Your task to perform on an android device: Open calendar and show me the first week of next month Image 0: 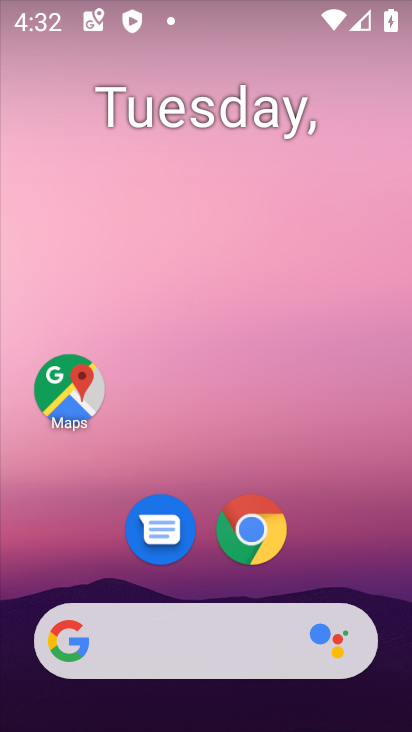
Step 0: drag from (346, 553) to (267, 1)
Your task to perform on an android device: Open calendar and show me the first week of next month Image 1: 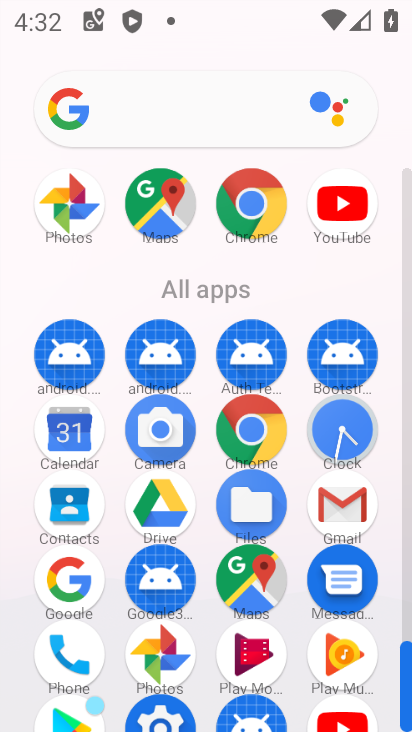
Step 1: drag from (17, 546) to (15, 259)
Your task to perform on an android device: Open calendar and show me the first week of next month Image 2: 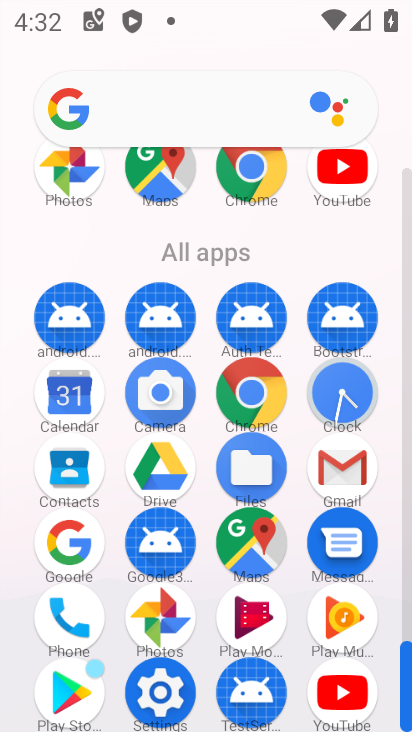
Step 2: click (246, 542)
Your task to perform on an android device: Open calendar and show me the first week of next month Image 3: 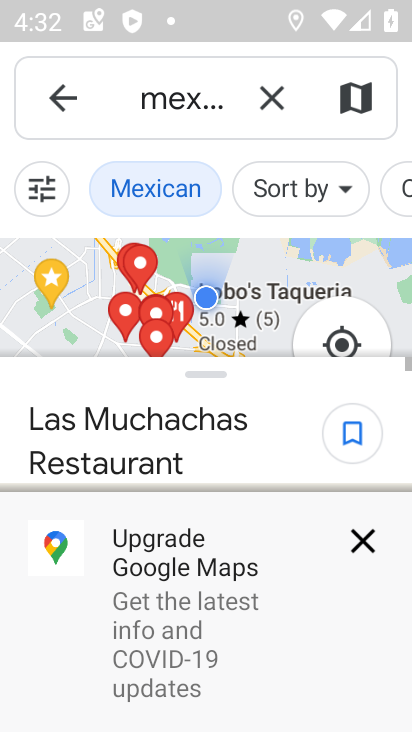
Step 3: press back button
Your task to perform on an android device: Open calendar and show me the first week of next month Image 4: 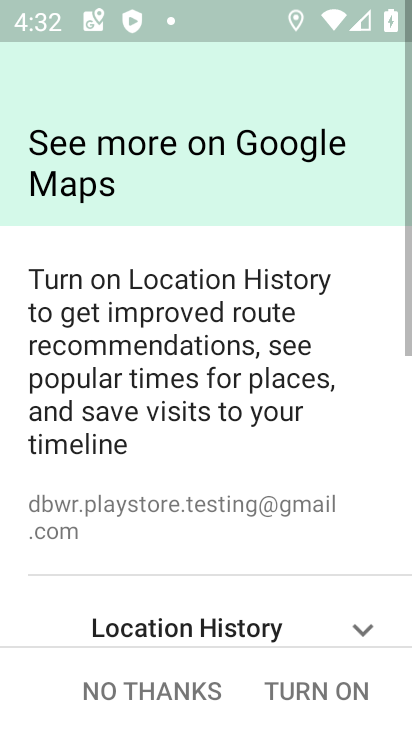
Step 4: press back button
Your task to perform on an android device: Open calendar and show me the first week of next month Image 5: 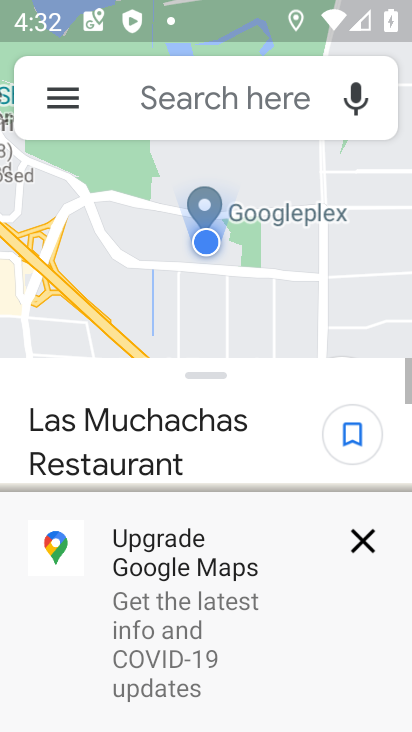
Step 5: press back button
Your task to perform on an android device: Open calendar and show me the first week of next month Image 6: 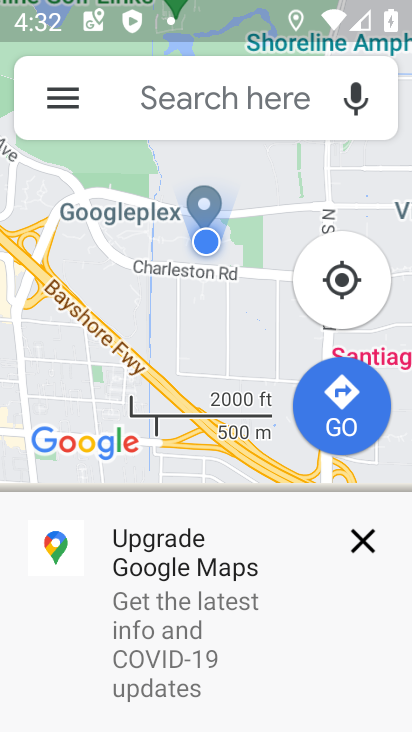
Step 6: press home button
Your task to perform on an android device: Open calendar and show me the first week of next month Image 7: 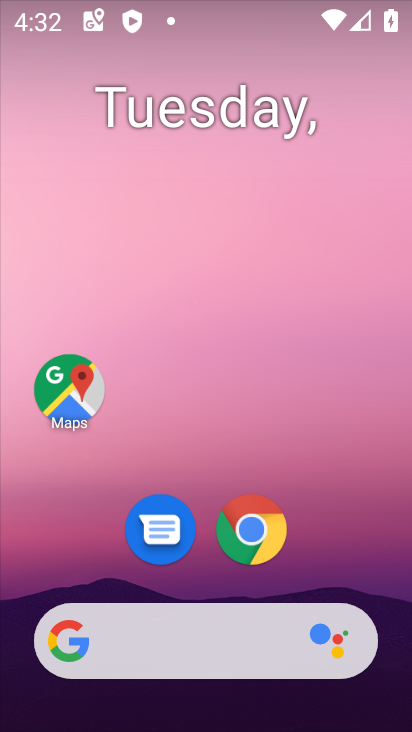
Step 7: drag from (330, 545) to (239, 31)
Your task to perform on an android device: Open calendar and show me the first week of next month Image 8: 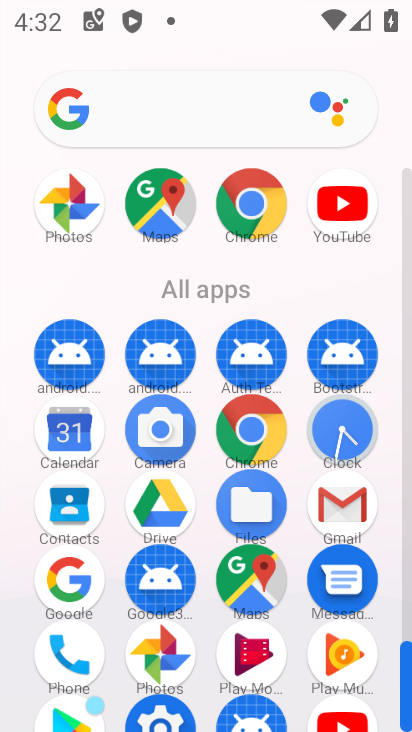
Step 8: click (61, 423)
Your task to perform on an android device: Open calendar and show me the first week of next month Image 9: 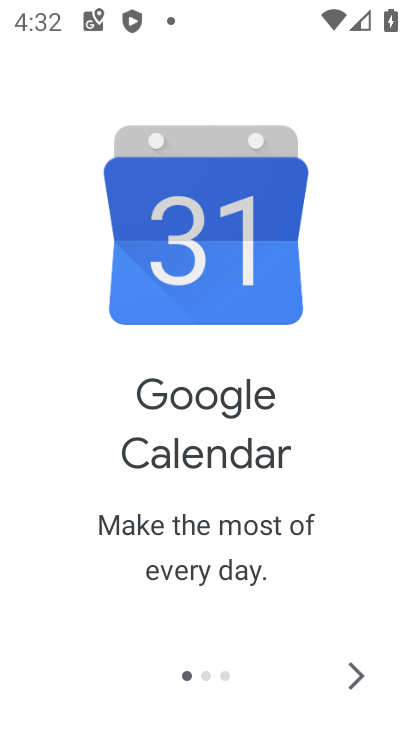
Step 9: click (347, 671)
Your task to perform on an android device: Open calendar and show me the first week of next month Image 10: 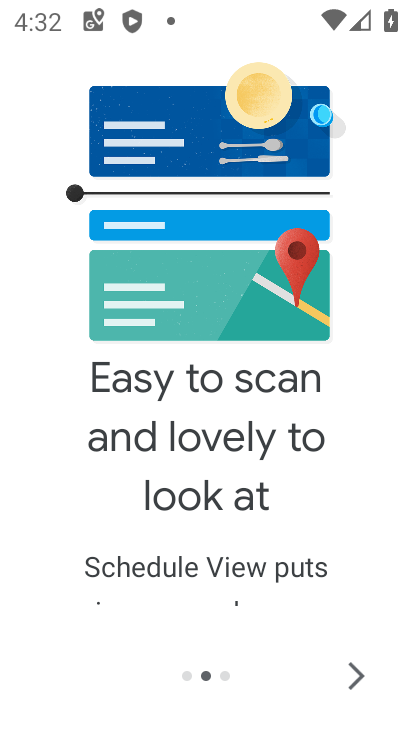
Step 10: click (347, 671)
Your task to perform on an android device: Open calendar and show me the first week of next month Image 11: 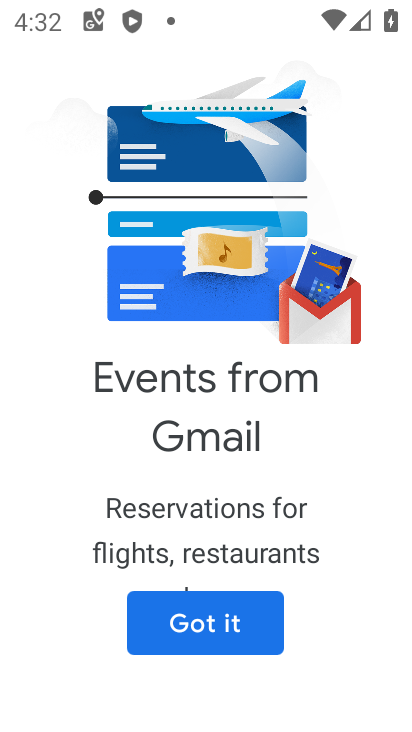
Step 11: click (205, 640)
Your task to perform on an android device: Open calendar and show me the first week of next month Image 12: 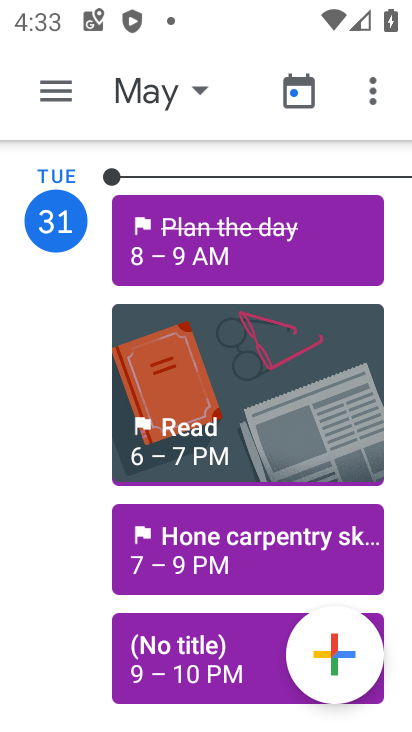
Step 12: click (149, 93)
Your task to perform on an android device: Open calendar and show me the first week of next month Image 13: 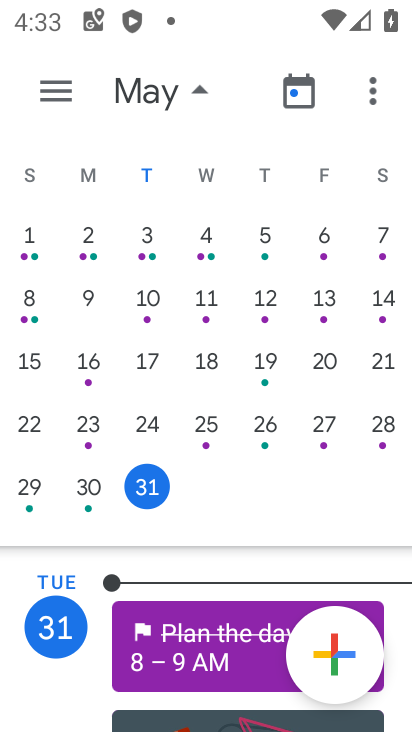
Step 13: drag from (362, 249) to (0, 278)
Your task to perform on an android device: Open calendar and show me the first week of next month Image 14: 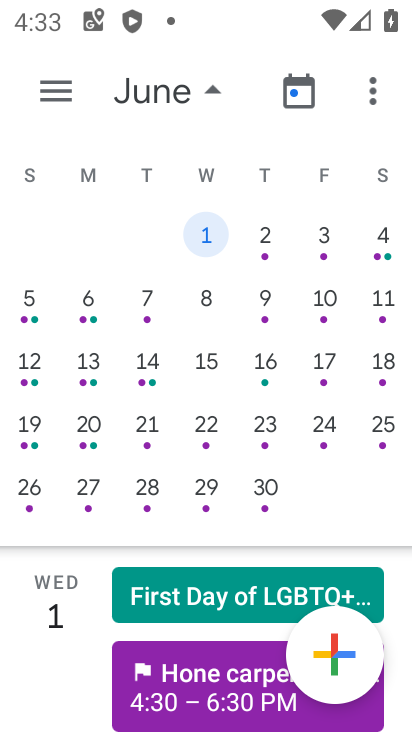
Step 14: click (199, 231)
Your task to perform on an android device: Open calendar and show me the first week of next month Image 15: 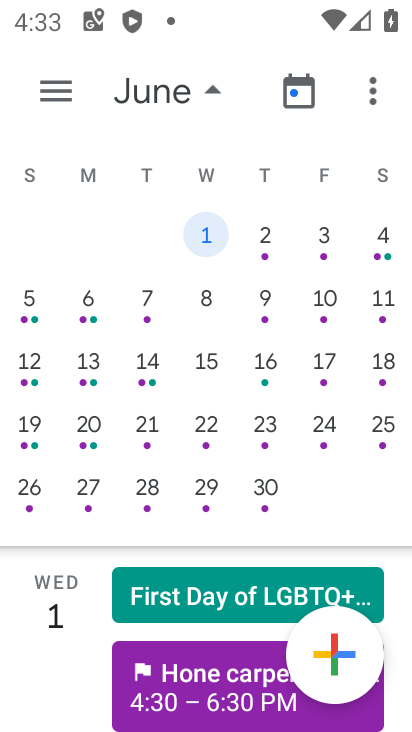
Step 15: click (57, 96)
Your task to perform on an android device: Open calendar and show me the first week of next month Image 16: 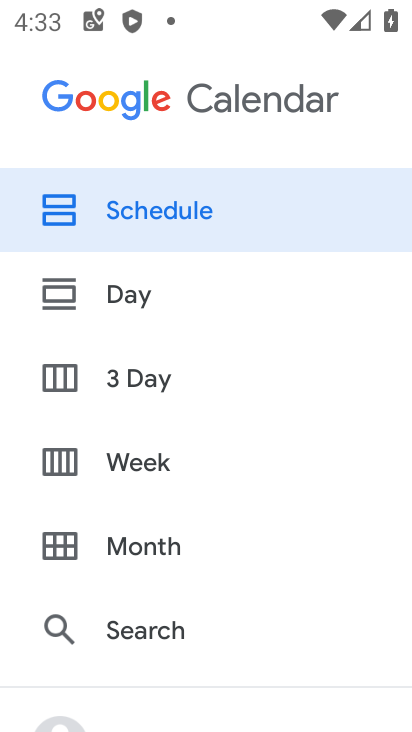
Step 16: click (148, 455)
Your task to perform on an android device: Open calendar and show me the first week of next month Image 17: 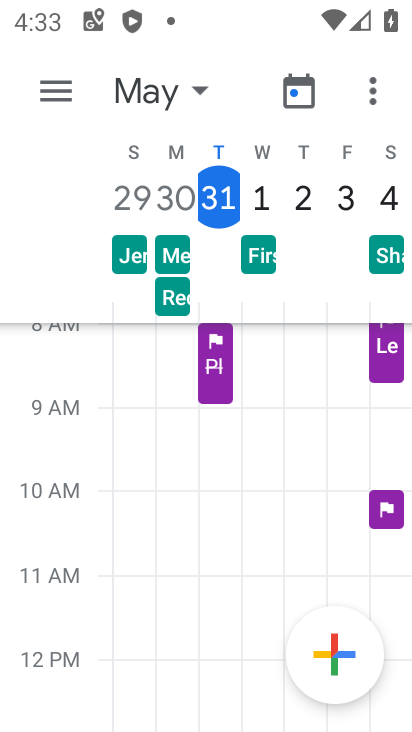
Step 17: task complete